Your task to perform on an android device: Find coffee shops on Maps Image 0: 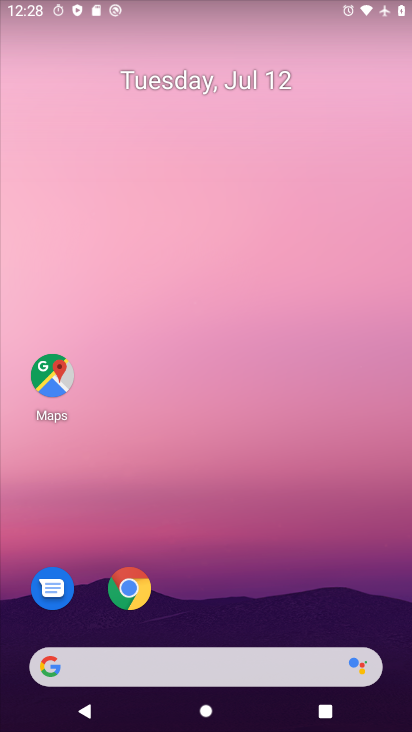
Step 0: press home button
Your task to perform on an android device: Find coffee shops on Maps Image 1: 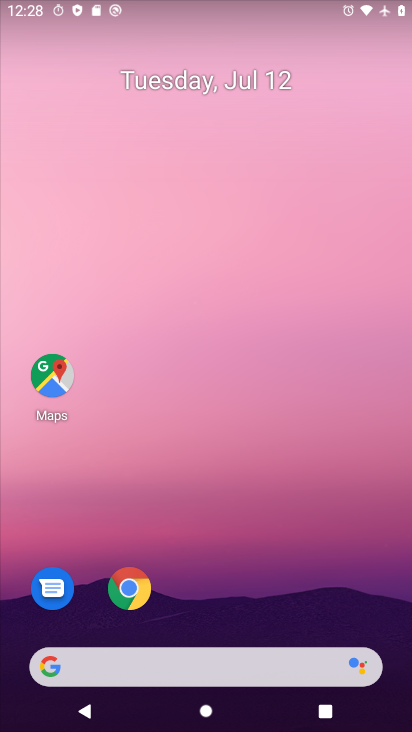
Step 1: click (60, 381)
Your task to perform on an android device: Find coffee shops on Maps Image 2: 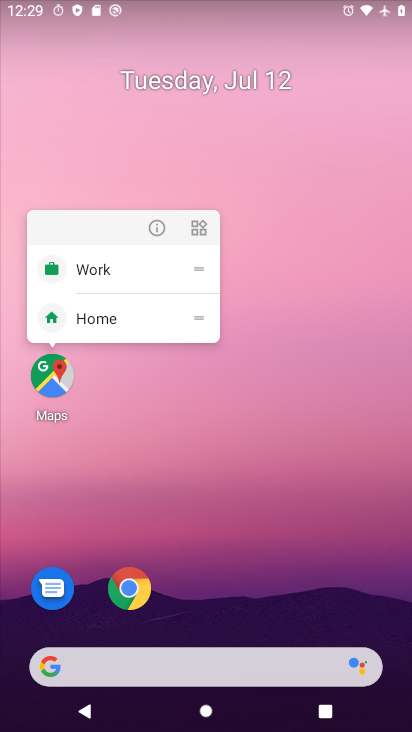
Step 2: click (56, 382)
Your task to perform on an android device: Find coffee shops on Maps Image 3: 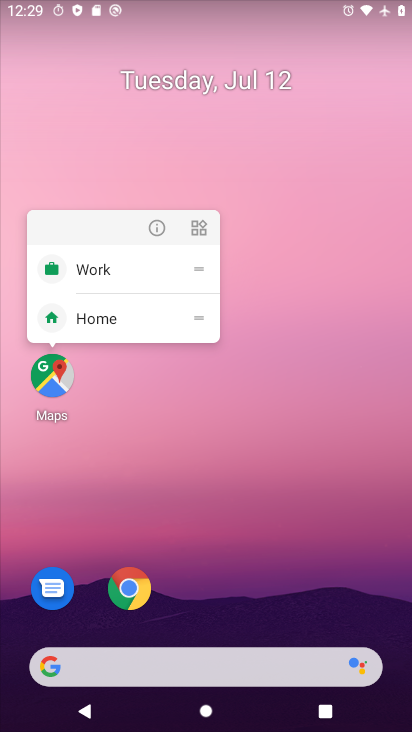
Step 3: click (44, 388)
Your task to perform on an android device: Find coffee shops on Maps Image 4: 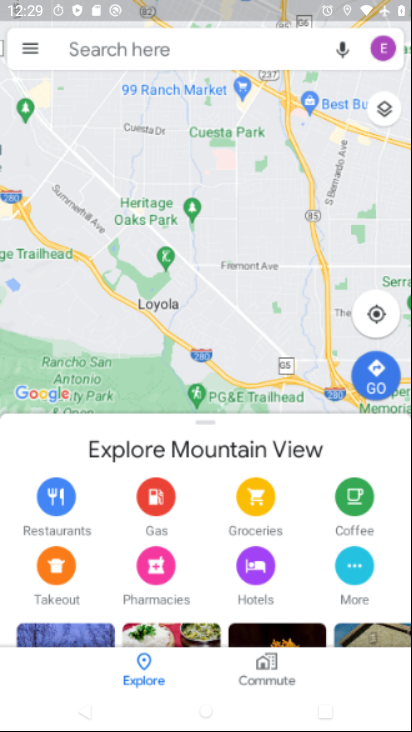
Step 4: click (213, 40)
Your task to perform on an android device: Find coffee shops on Maps Image 5: 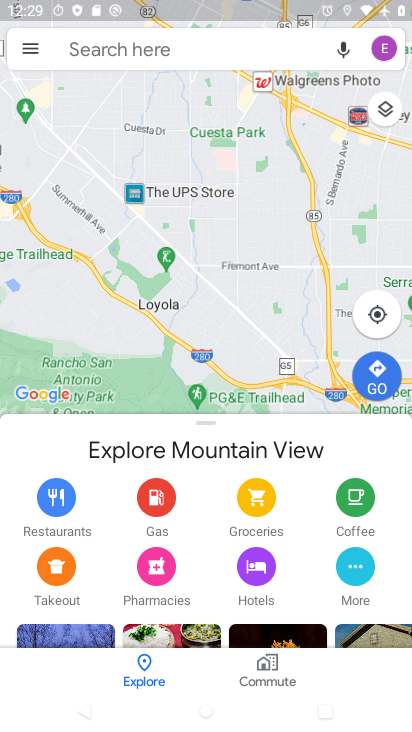
Step 5: click (161, 50)
Your task to perform on an android device: Find coffee shops on Maps Image 6: 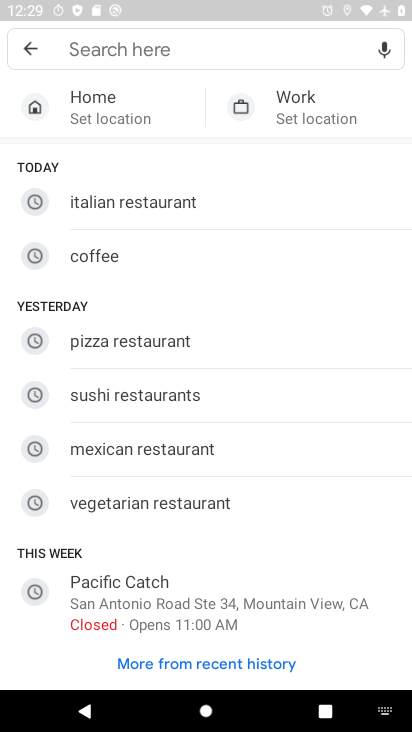
Step 6: click (88, 260)
Your task to perform on an android device: Find coffee shops on Maps Image 7: 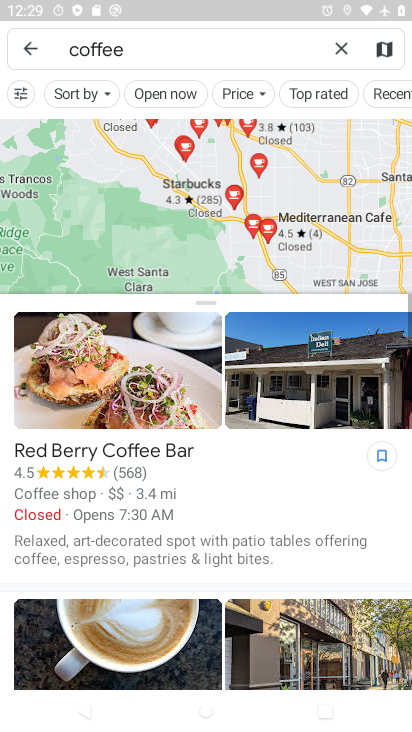
Step 7: task complete